Your task to perform on an android device: Open internet settings Image 0: 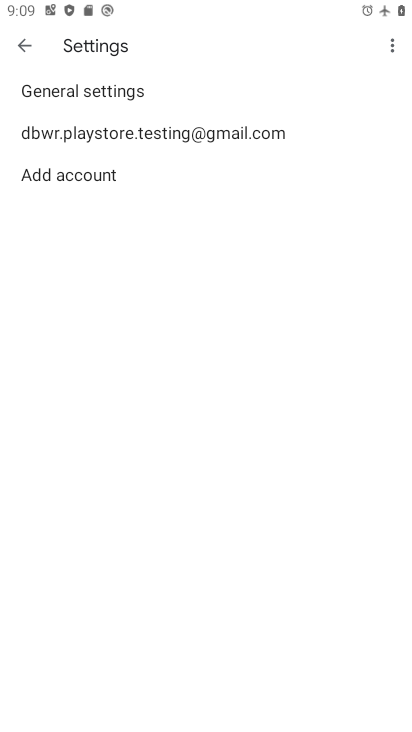
Step 0: press home button
Your task to perform on an android device: Open internet settings Image 1: 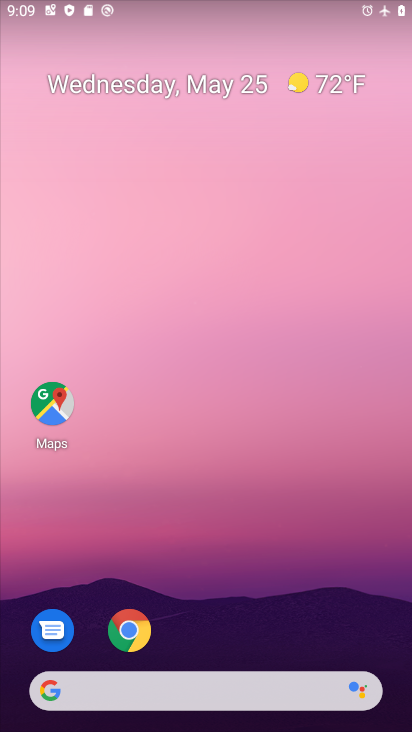
Step 1: drag from (200, 629) to (184, 139)
Your task to perform on an android device: Open internet settings Image 2: 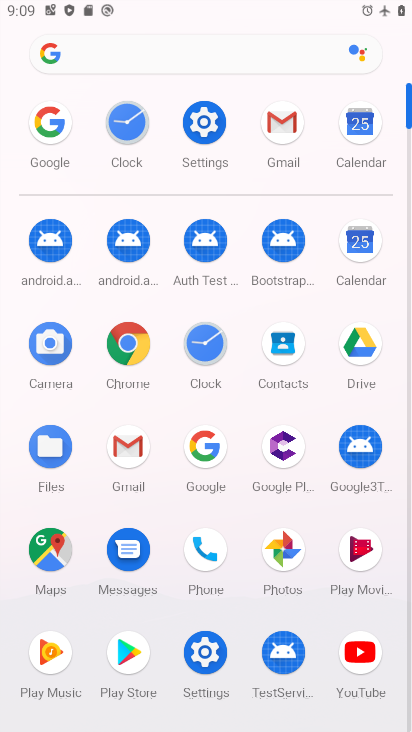
Step 2: click (185, 142)
Your task to perform on an android device: Open internet settings Image 3: 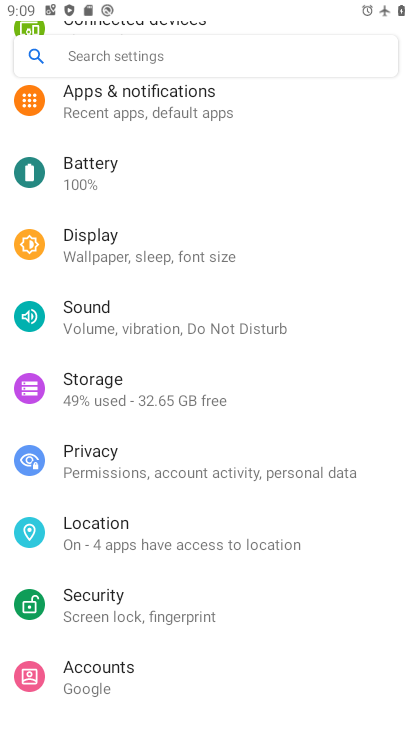
Step 3: drag from (185, 143) to (183, 610)
Your task to perform on an android device: Open internet settings Image 4: 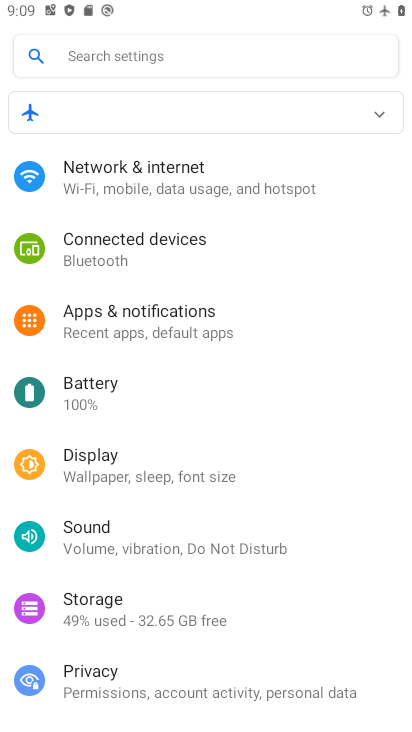
Step 4: click (203, 203)
Your task to perform on an android device: Open internet settings Image 5: 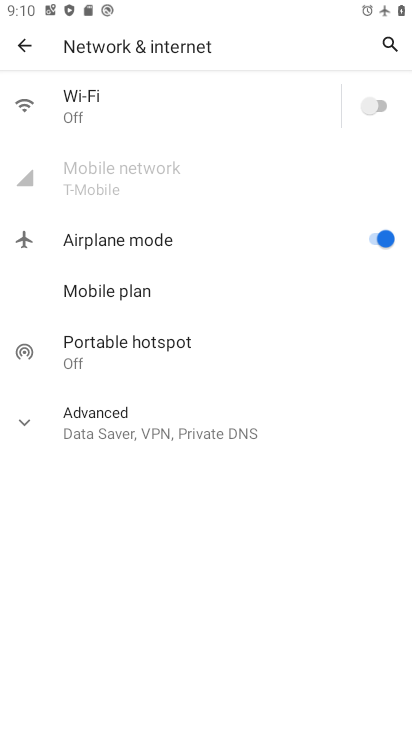
Step 5: click (198, 159)
Your task to perform on an android device: Open internet settings Image 6: 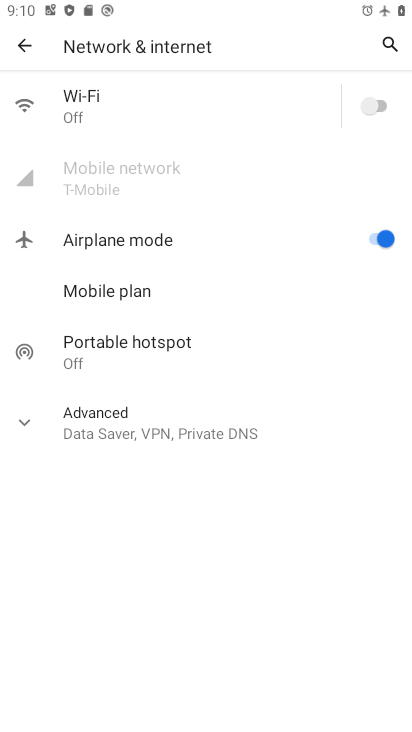
Step 6: task complete